Your task to perform on an android device: Search for sushi restaurants on Maps Image 0: 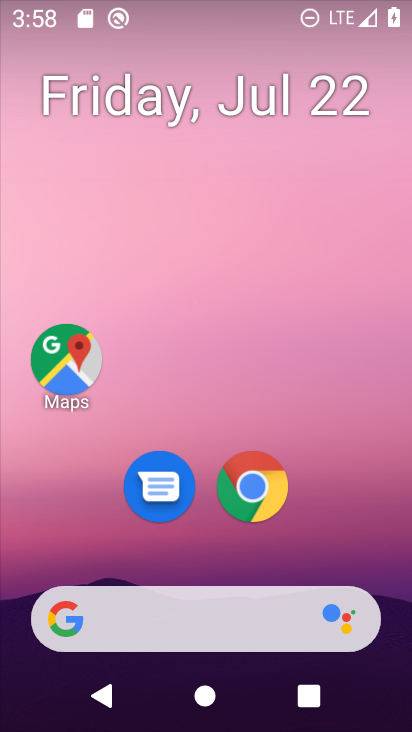
Step 0: click (71, 368)
Your task to perform on an android device: Search for sushi restaurants on Maps Image 1: 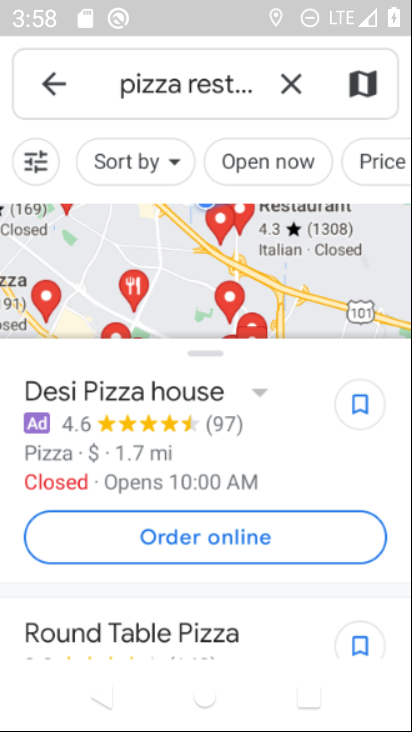
Step 1: click (303, 76)
Your task to perform on an android device: Search for sushi restaurants on Maps Image 2: 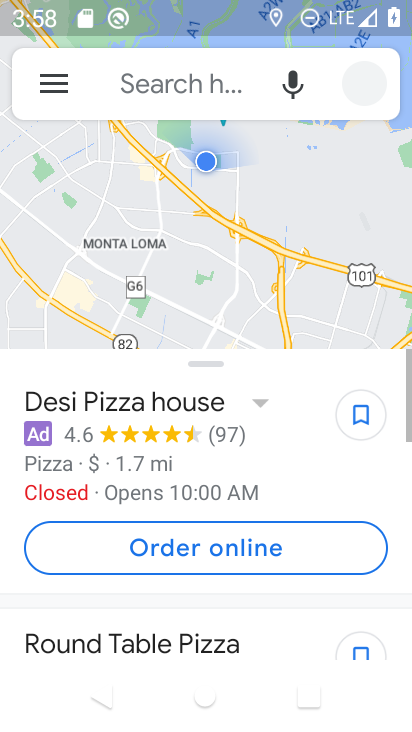
Step 2: click (294, 82)
Your task to perform on an android device: Search for sushi restaurants on Maps Image 3: 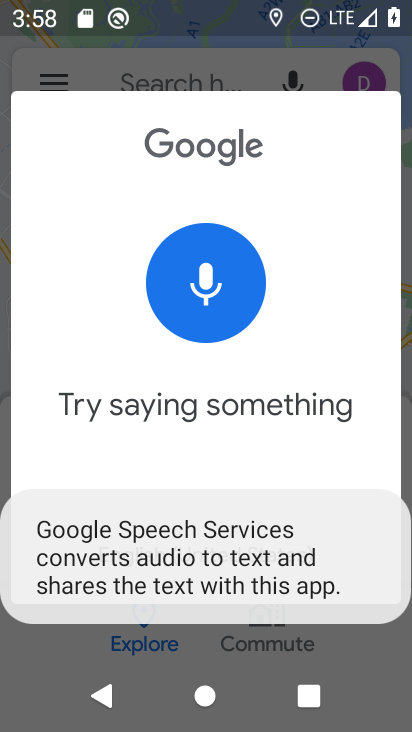
Step 3: click (191, 90)
Your task to perform on an android device: Search for sushi restaurants on Maps Image 4: 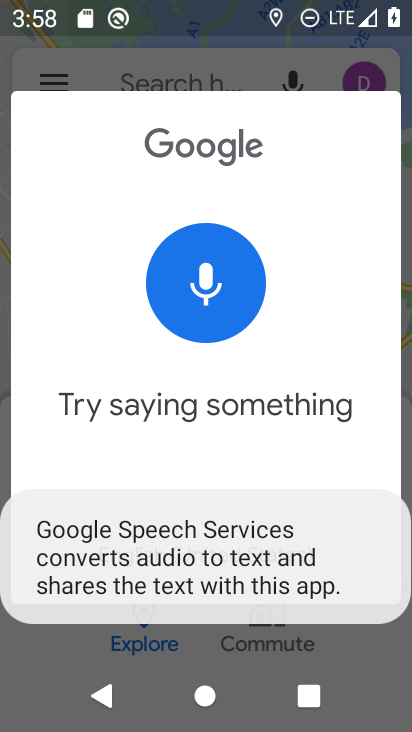
Step 4: click (189, 80)
Your task to perform on an android device: Search for sushi restaurants on Maps Image 5: 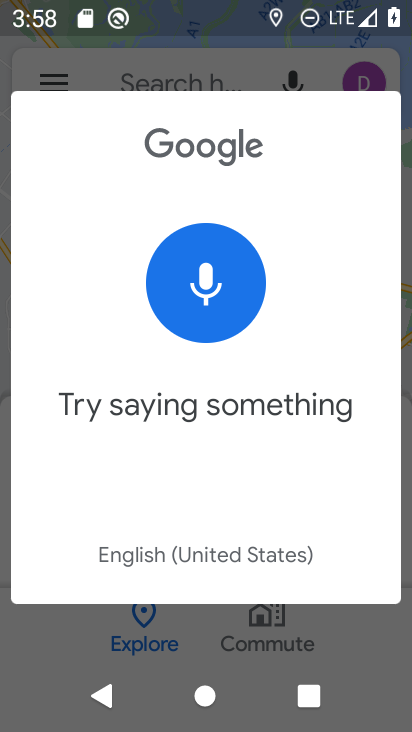
Step 5: click (185, 66)
Your task to perform on an android device: Search for sushi restaurants on Maps Image 6: 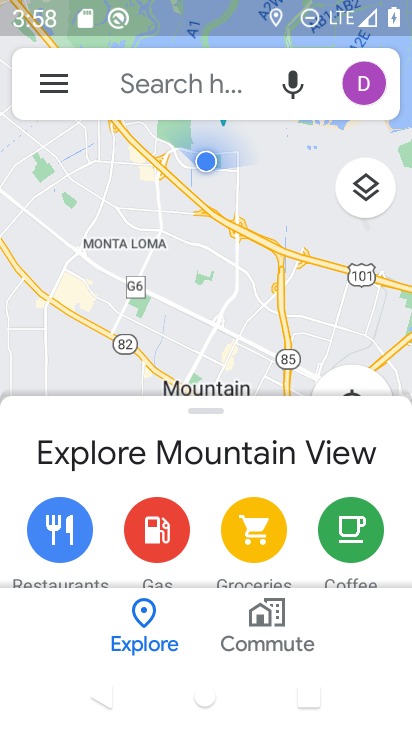
Step 6: click (155, 88)
Your task to perform on an android device: Search for sushi restaurants on Maps Image 7: 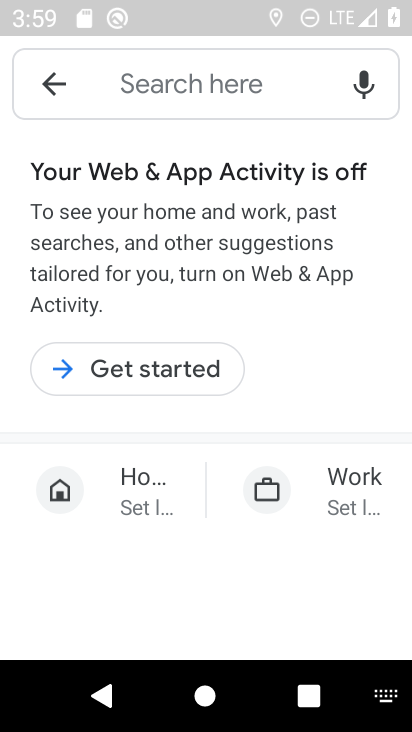
Step 7: type "sushi restaurant"
Your task to perform on an android device: Search for sushi restaurants on Maps Image 8: 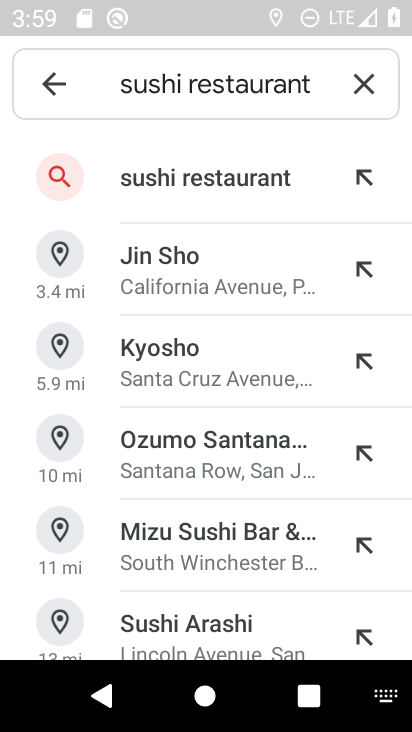
Step 8: click (220, 174)
Your task to perform on an android device: Search for sushi restaurants on Maps Image 9: 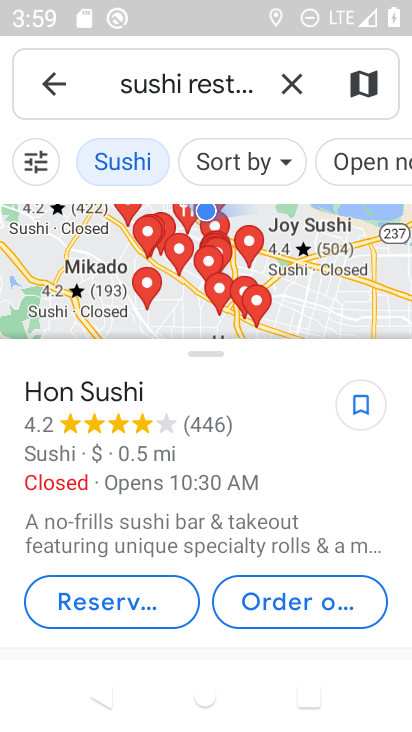
Step 9: task complete